Your task to perform on an android device: turn on translation in the chrome app Image 0: 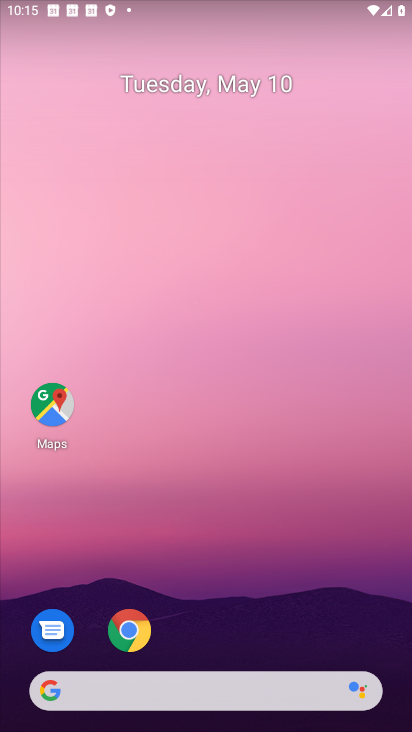
Step 0: click (132, 623)
Your task to perform on an android device: turn on translation in the chrome app Image 1: 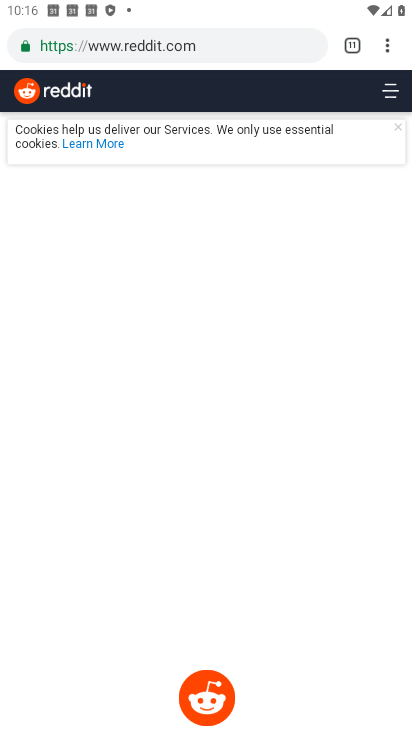
Step 1: task complete